Your task to perform on an android device: make emails show in primary in the gmail app Image 0: 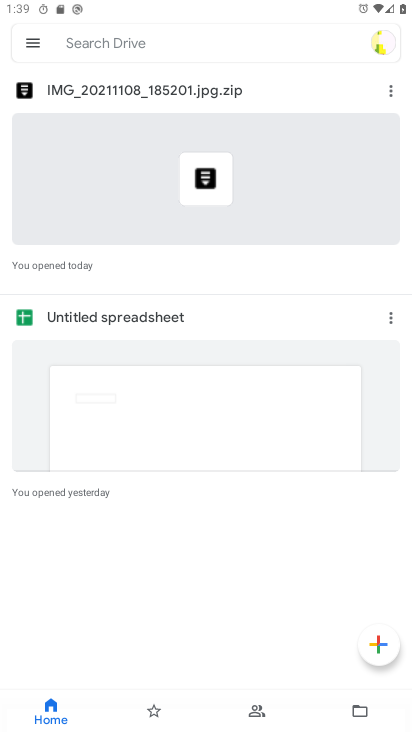
Step 0: press home button
Your task to perform on an android device: make emails show in primary in the gmail app Image 1: 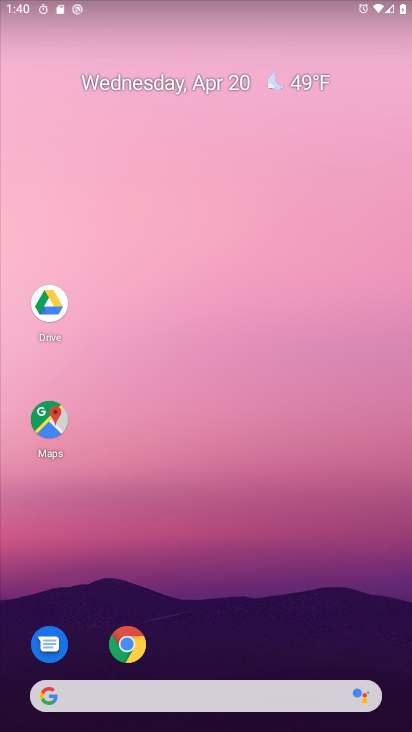
Step 1: drag from (227, 642) to (177, 53)
Your task to perform on an android device: make emails show in primary in the gmail app Image 2: 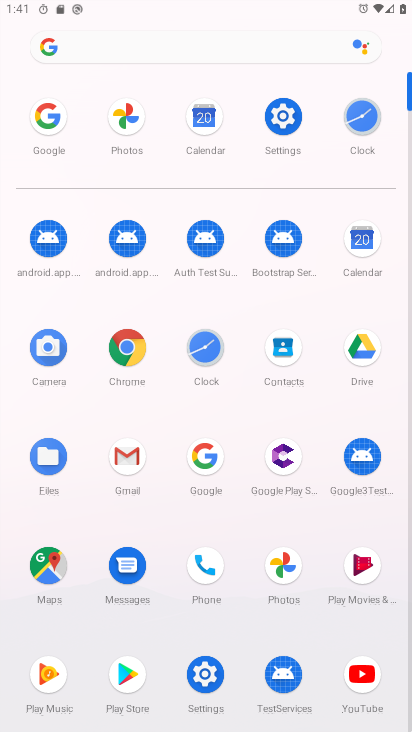
Step 2: click (123, 451)
Your task to perform on an android device: make emails show in primary in the gmail app Image 3: 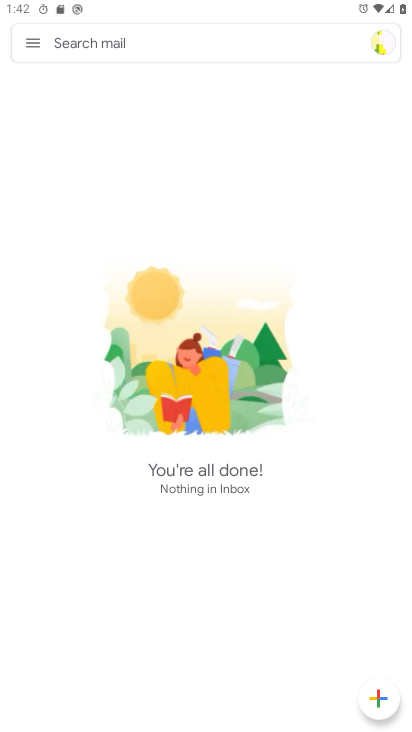
Step 3: click (36, 40)
Your task to perform on an android device: make emails show in primary in the gmail app Image 4: 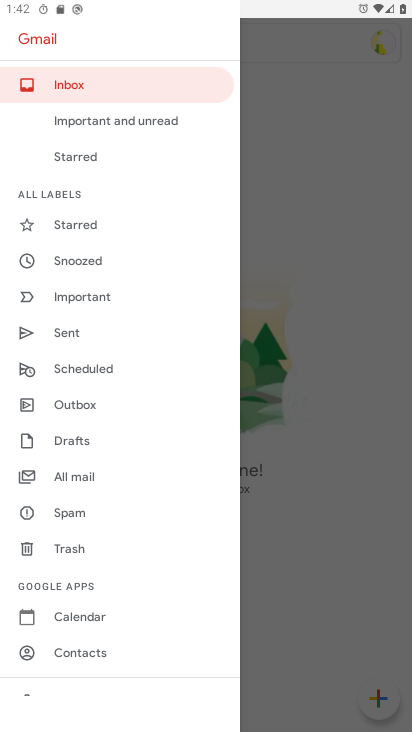
Step 4: drag from (114, 639) to (143, 407)
Your task to perform on an android device: make emails show in primary in the gmail app Image 5: 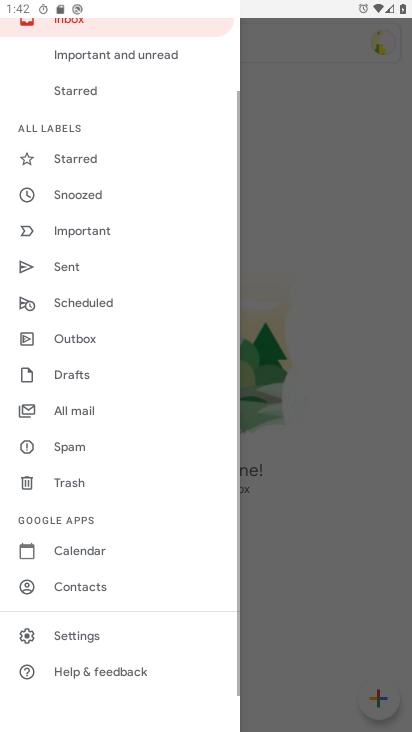
Step 5: click (96, 633)
Your task to perform on an android device: make emails show in primary in the gmail app Image 6: 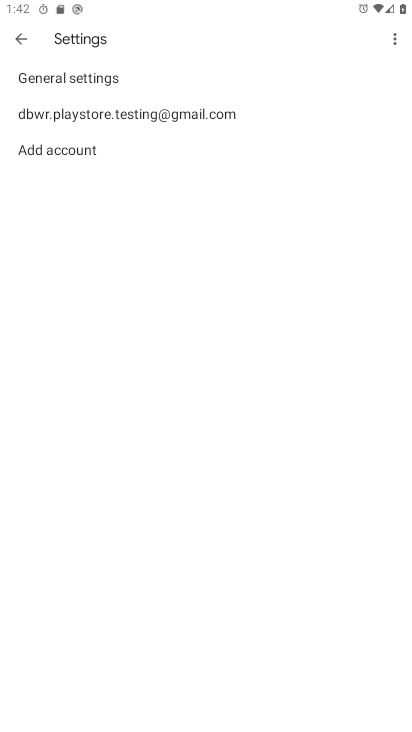
Step 6: click (144, 113)
Your task to perform on an android device: make emails show in primary in the gmail app Image 7: 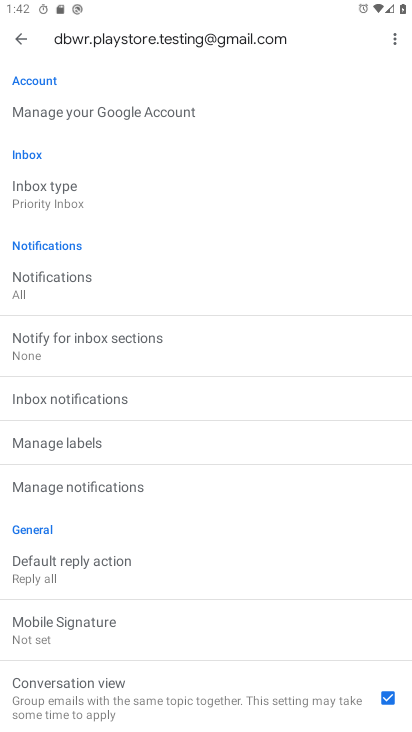
Step 7: task complete